Your task to perform on an android device: turn pop-ups off in chrome Image 0: 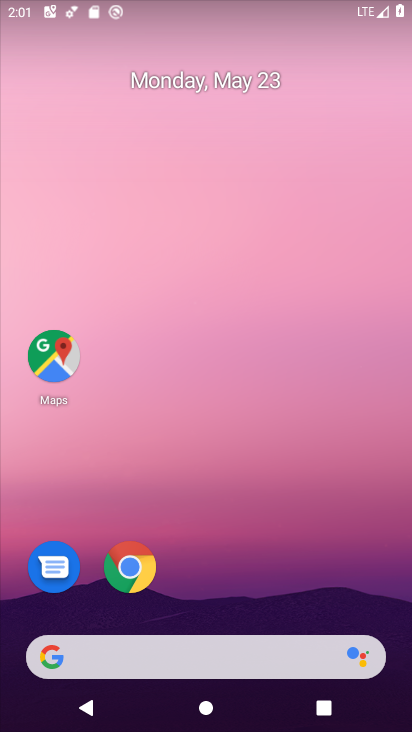
Step 0: drag from (258, 586) to (271, 264)
Your task to perform on an android device: turn pop-ups off in chrome Image 1: 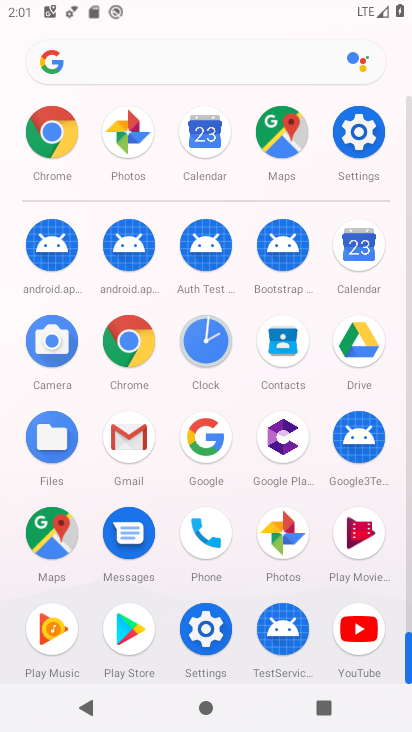
Step 1: click (126, 352)
Your task to perform on an android device: turn pop-ups off in chrome Image 2: 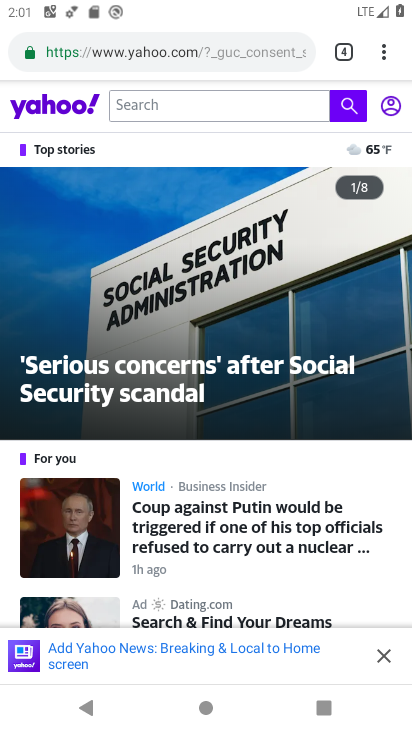
Step 2: click (383, 52)
Your task to perform on an android device: turn pop-ups off in chrome Image 3: 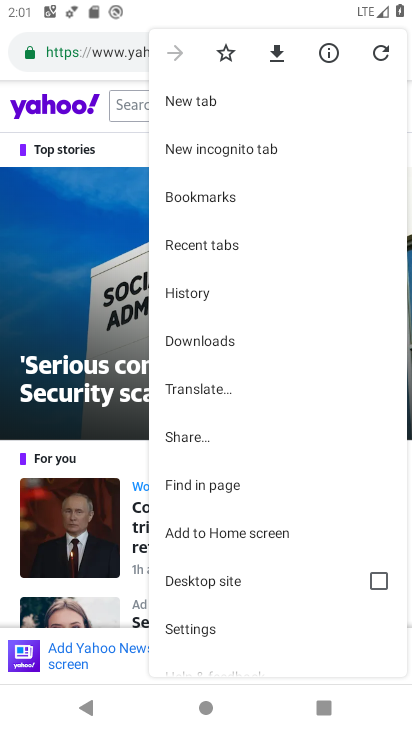
Step 3: click (203, 626)
Your task to perform on an android device: turn pop-ups off in chrome Image 4: 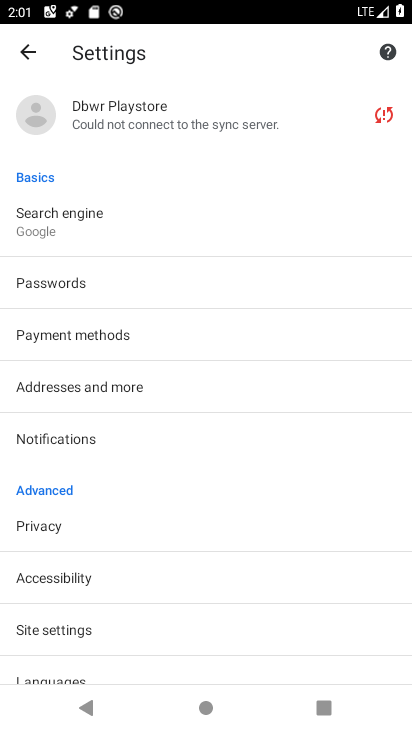
Step 4: drag from (211, 562) to (239, 327)
Your task to perform on an android device: turn pop-ups off in chrome Image 5: 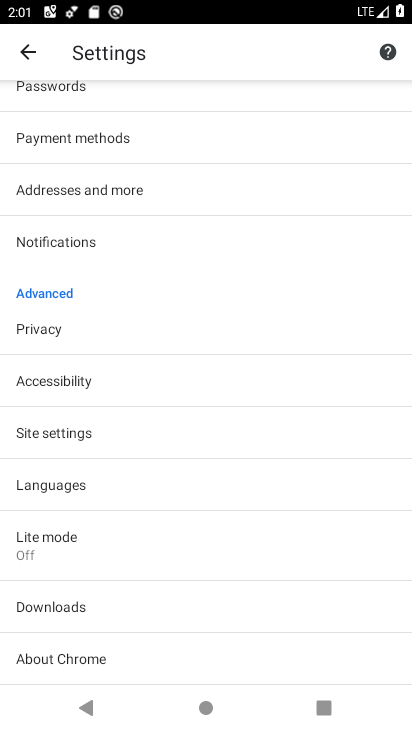
Step 5: click (86, 433)
Your task to perform on an android device: turn pop-ups off in chrome Image 6: 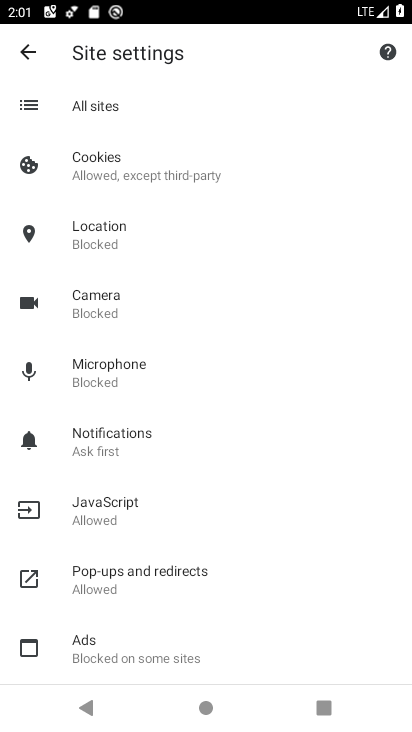
Step 6: click (143, 579)
Your task to perform on an android device: turn pop-ups off in chrome Image 7: 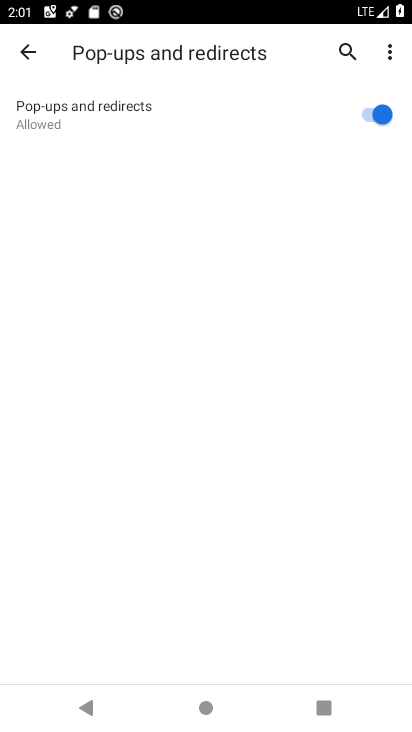
Step 7: click (374, 117)
Your task to perform on an android device: turn pop-ups off in chrome Image 8: 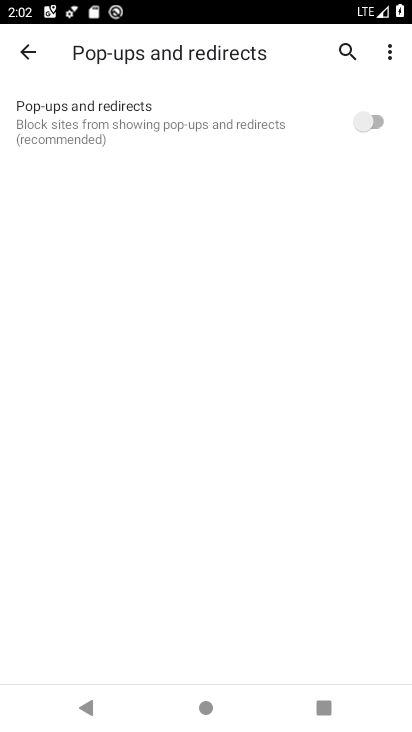
Step 8: task complete